Your task to perform on an android device: add a label to a message in the gmail app Image 0: 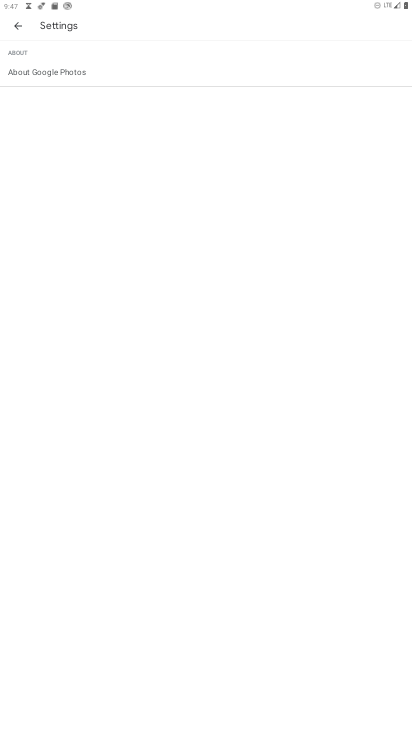
Step 0: press home button
Your task to perform on an android device: add a label to a message in the gmail app Image 1: 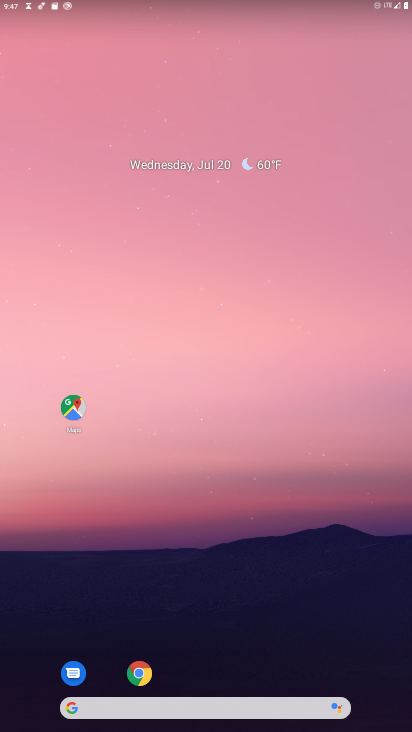
Step 1: drag from (169, 508) to (175, 328)
Your task to perform on an android device: add a label to a message in the gmail app Image 2: 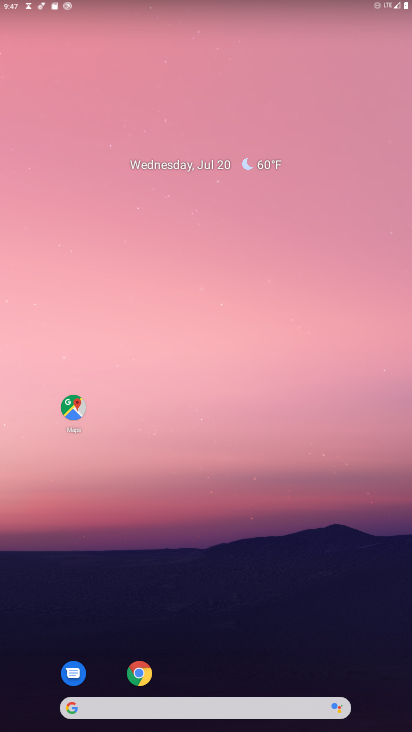
Step 2: drag from (275, 63) to (268, 30)
Your task to perform on an android device: add a label to a message in the gmail app Image 3: 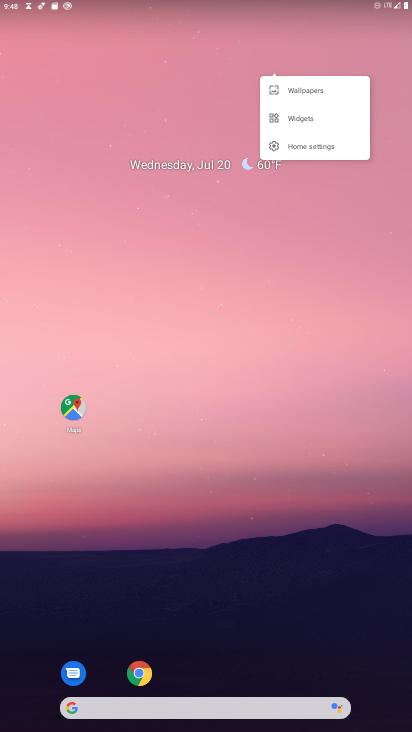
Step 3: drag from (193, 553) to (115, 119)
Your task to perform on an android device: add a label to a message in the gmail app Image 4: 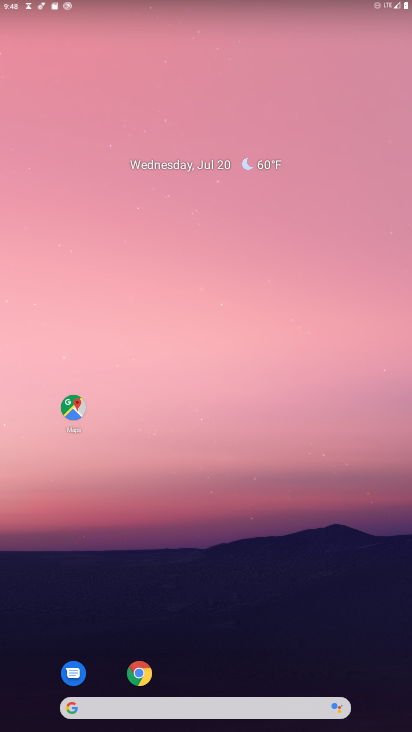
Step 4: drag from (244, 610) to (230, 125)
Your task to perform on an android device: add a label to a message in the gmail app Image 5: 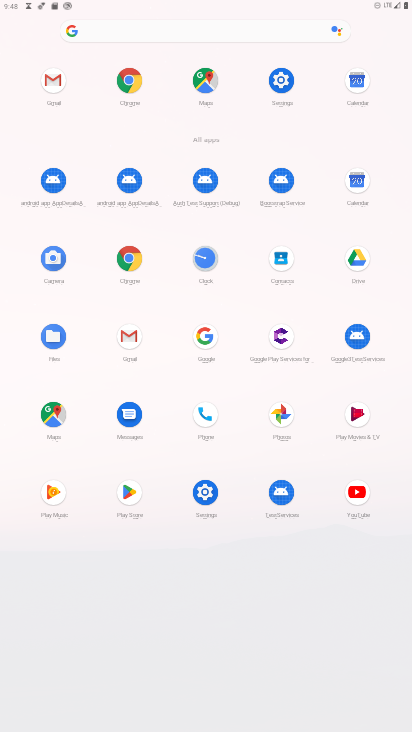
Step 5: click (52, 86)
Your task to perform on an android device: add a label to a message in the gmail app Image 6: 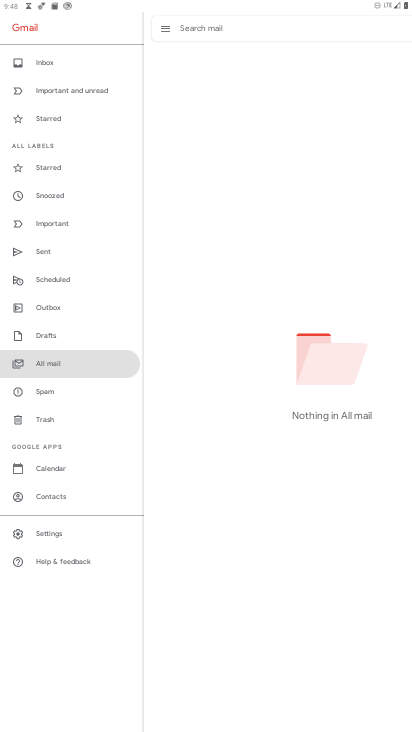
Step 6: task complete